Your task to perform on an android device: turn on notifications settings in the gmail app Image 0: 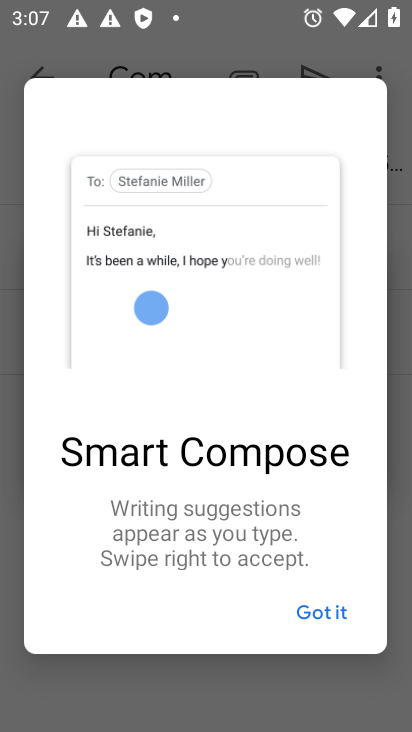
Step 0: press home button
Your task to perform on an android device: turn on notifications settings in the gmail app Image 1: 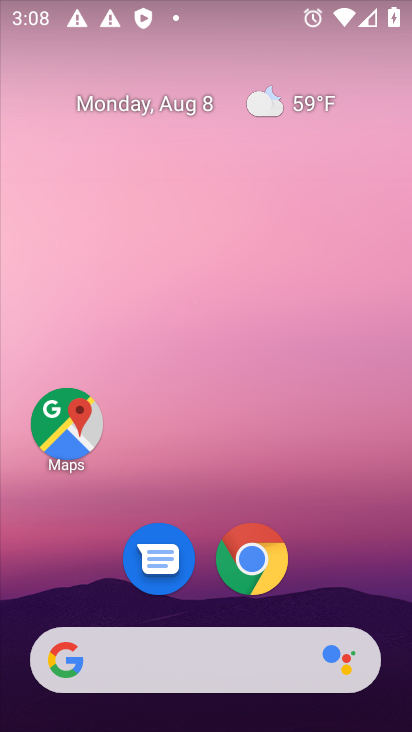
Step 1: drag from (234, 636) to (342, 274)
Your task to perform on an android device: turn on notifications settings in the gmail app Image 2: 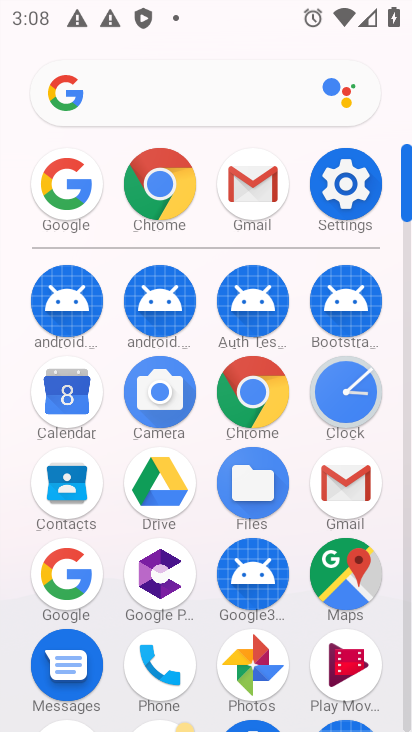
Step 2: click (254, 185)
Your task to perform on an android device: turn on notifications settings in the gmail app Image 3: 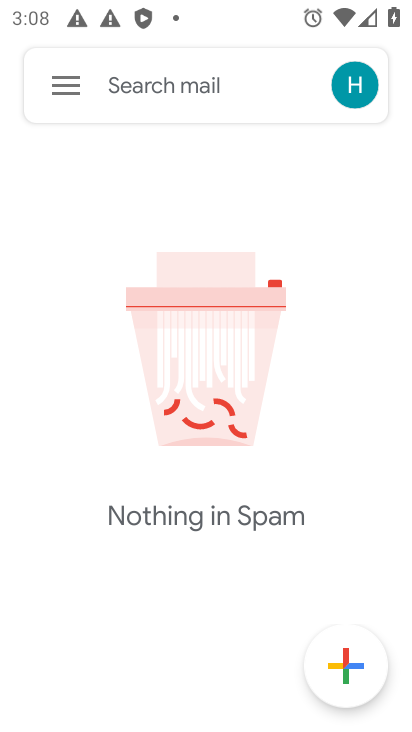
Step 3: click (69, 87)
Your task to perform on an android device: turn on notifications settings in the gmail app Image 4: 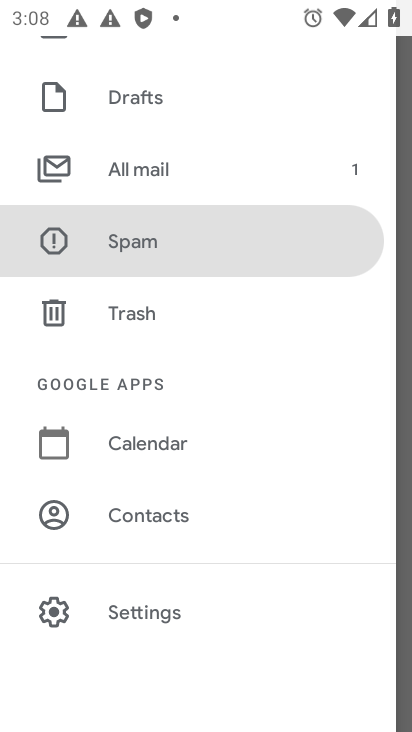
Step 4: click (159, 613)
Your task to perform on an android device: turn on notifications settings in the gmail app Image 5: 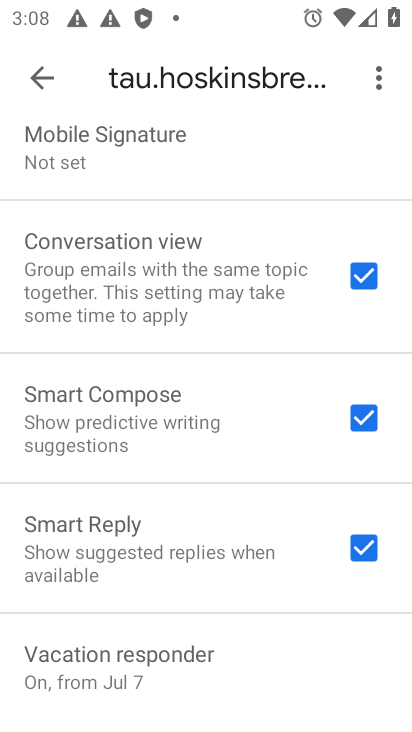
Step 5: drag from (239, 128) to (258, 225)
Your task to perform on an android device: turn on notifications settings in the gmail app Image 6: 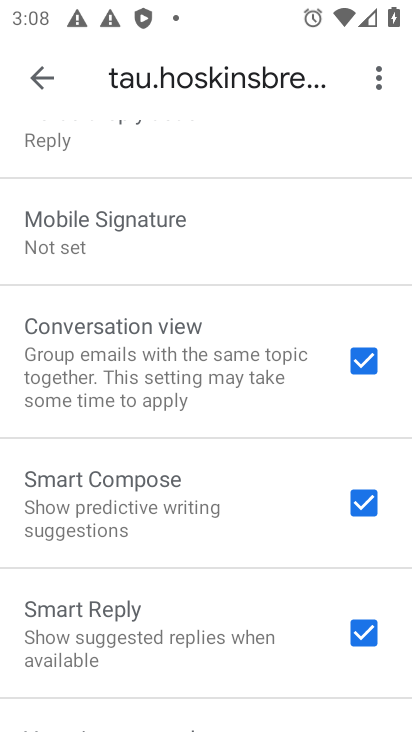
Step 6: drag from (224, 143) to (215, 289)
Your task to perform on an android device: turn on notifications settings in the gmail app Image 7: 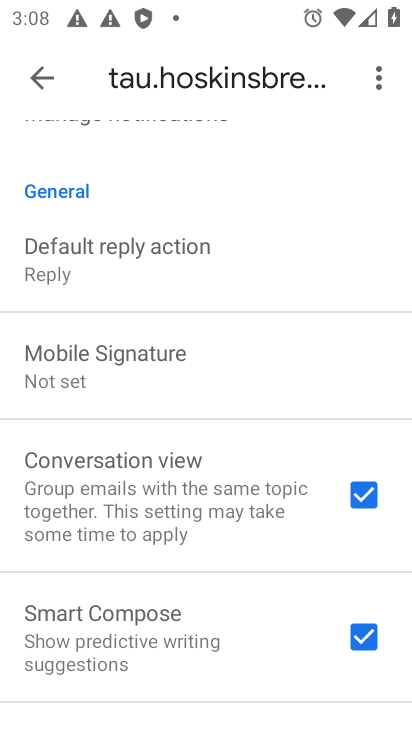
Step 7: drag from (195, 176) to (234, 281)
Your task to perform on an android device: turn on notifications settings in the gmail app Image 8: 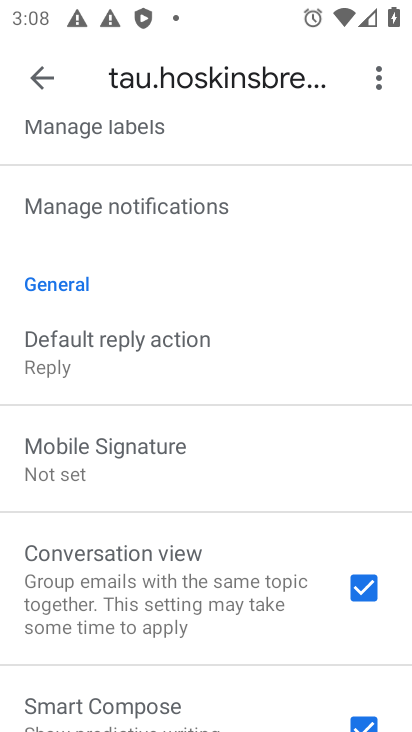
Step 8: click (204, 203)
Your task to perform on an android device: turn on notifications settings in the gmail app Image 9: 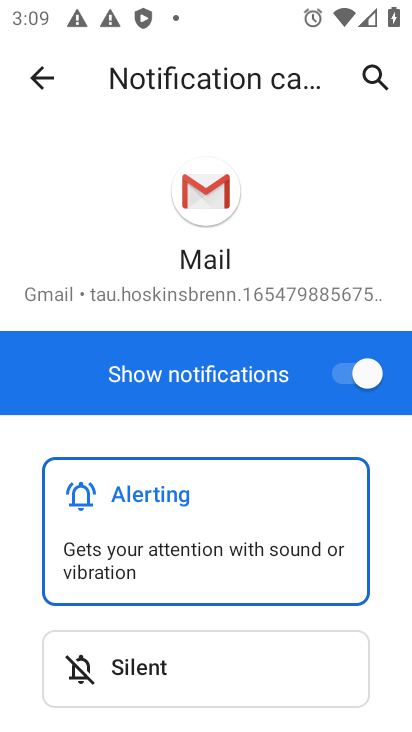
Step 9: task complete